Your task to perform on an android device: turn on showing notifications on the lock screen Image 0: 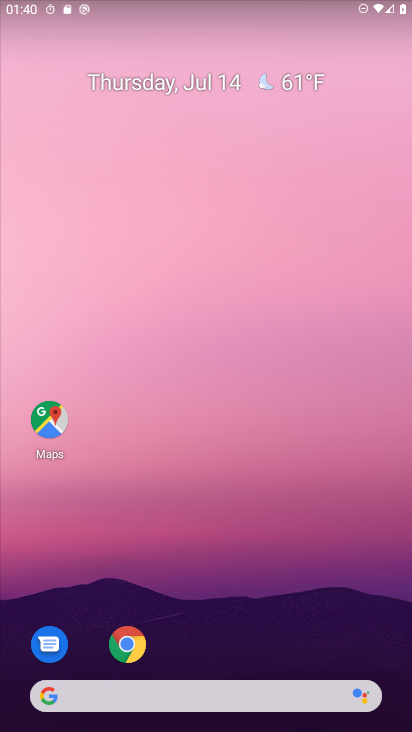
Step 0: drag from (309, 581) to (204, 68)
Your task to perform on an android device: turn on showing notifications on the lock screen Image 1: 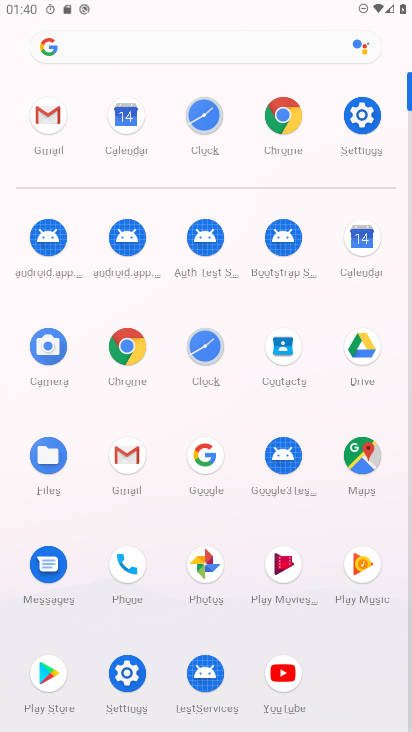
Step 1: click (354, 113)
Your task to perform on an android device: turn on showing notifications on the lock screen Image 2: 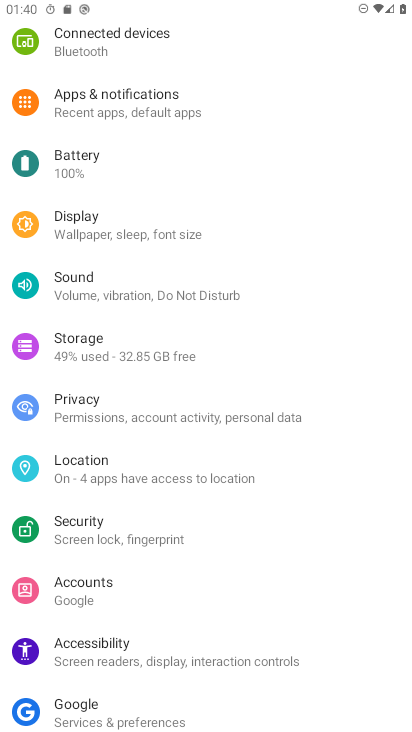
Step 2: click (132, 110)
Your task to perform on an android device: turn on showing notifications on the lock screen Image 3: 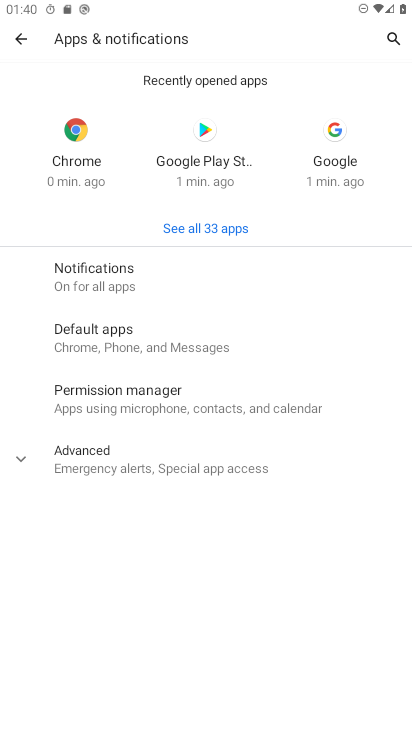
Step 3: click (90, 287)
Your task to perform on an android device: turn on showing notifications on the lock screen Image 4: 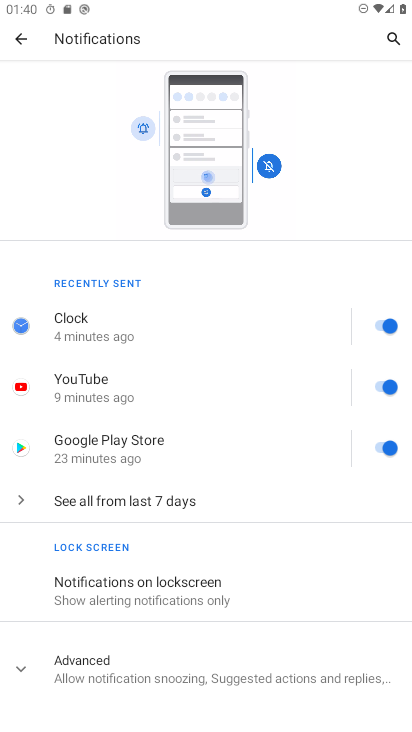
Step 4: click (171, 596)
Your task to perform on an android device: turn on showing notifications on the lock screen Image 5: 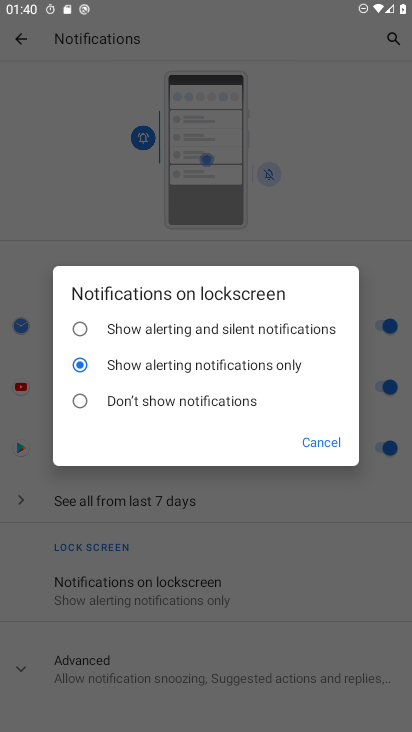
Step 5: click (206, 400)
Your task to perform on an android device: turn on showing notifications on the lock screen Image 6: 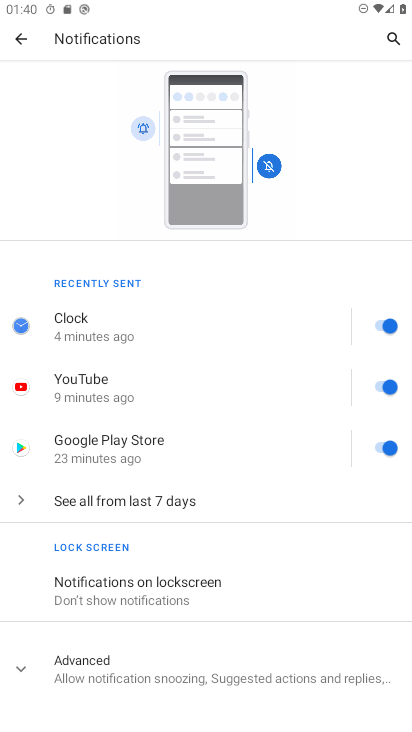
Step 6: task complete